Your task to perform on an android device: turn off location Image 0: 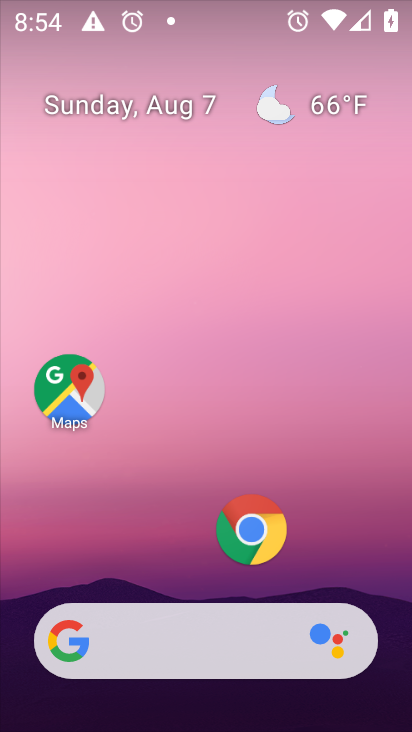
Step 0: drag from (183, 516) to (249, 138)
Your task to perform on an android device: turn off location Image 1: 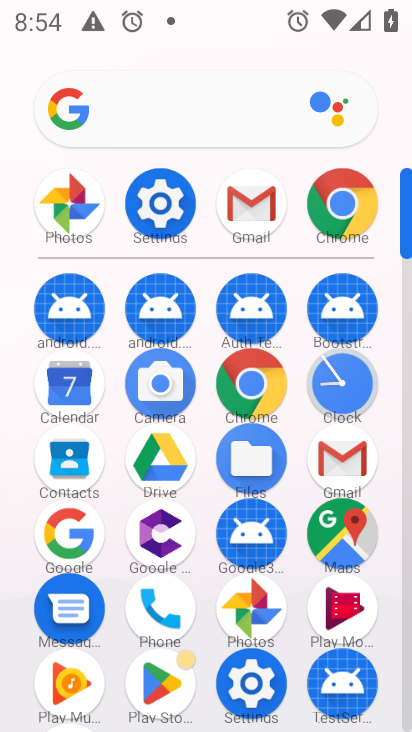
Step 1: click (245, 701)
Your task to perform on an android device: turn off location Image 2: 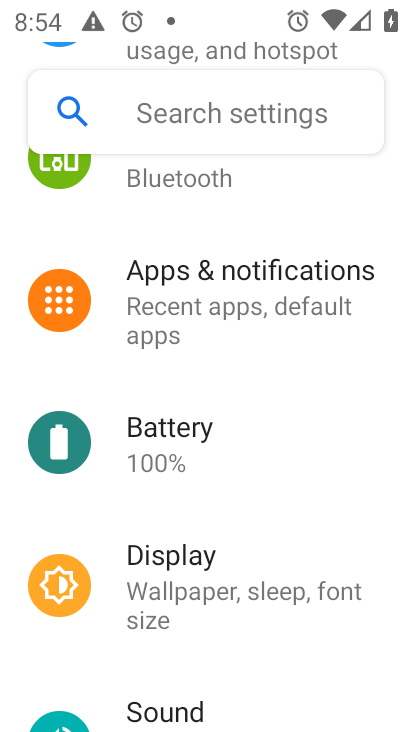
Step 2: drag from (207, 591) to (249, 324)
Your task to perform on an android device: turn off location Image 3: 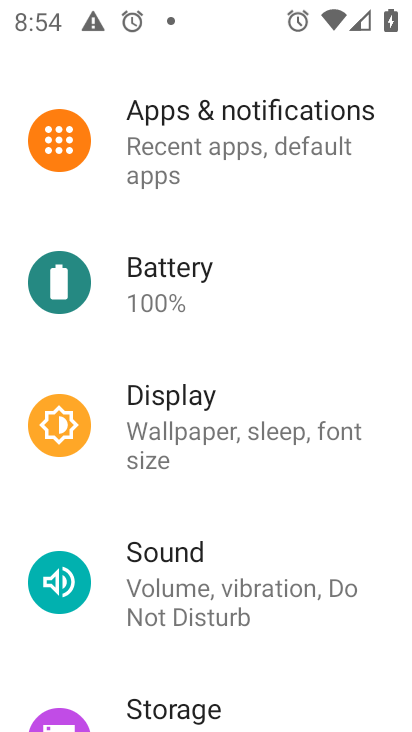
Step 3: drag from (225, 560) to (249, 268)
Your task to perform on an android device: turn off location Image 4: 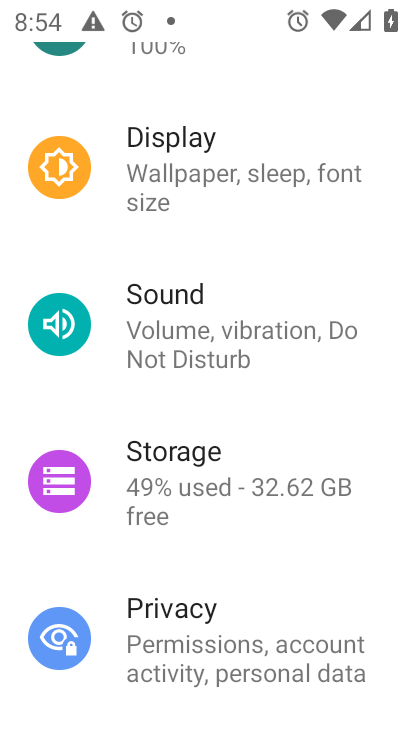
Step 4: drag from (212, 581) to (251, 273)
Your task to perform on an android device: turn off location Image 5: 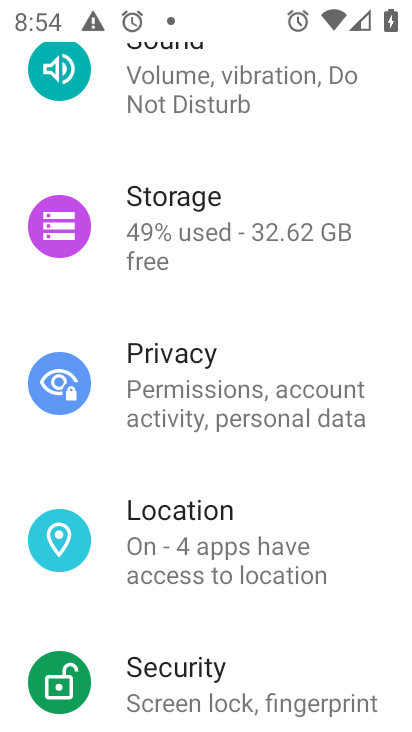
Step 5: click (201, 558)
Your task to perform on an android device: turn off location Image 6: 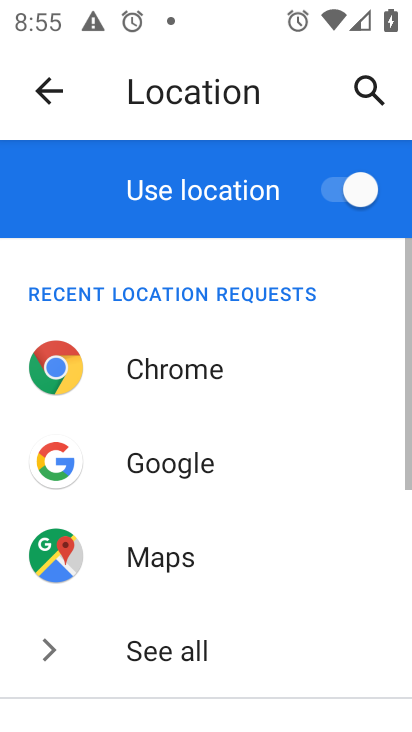
Step 6: click (320, 185)
Your task to perform on an android device: turn off location Image 7: 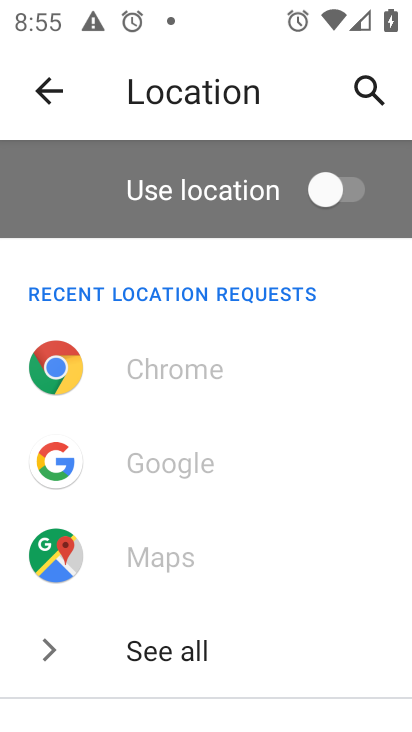
Step 7: task complete